Your task to perform on an android device: open app "LiveIn - Share Your Moment" (install if not already installed), go to login, and select forgot password Image 0: 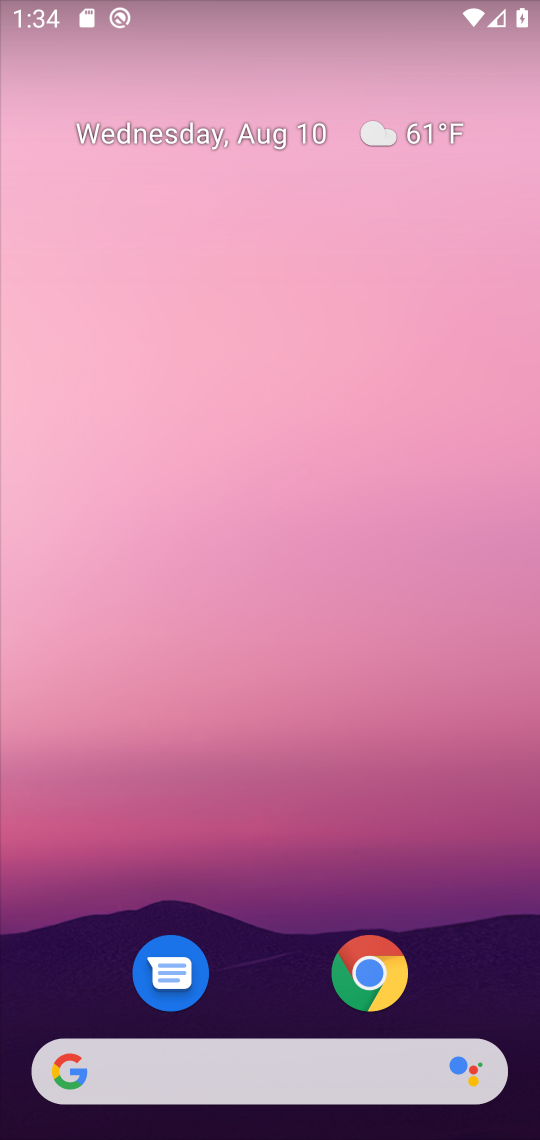
Step 0: drag from (295, 1006) to (308, 245)
Your task to perform on an android device: open app "LiveIn - Share Your Moment" (install if not already installed), go to login, and select forgot password Image 1: 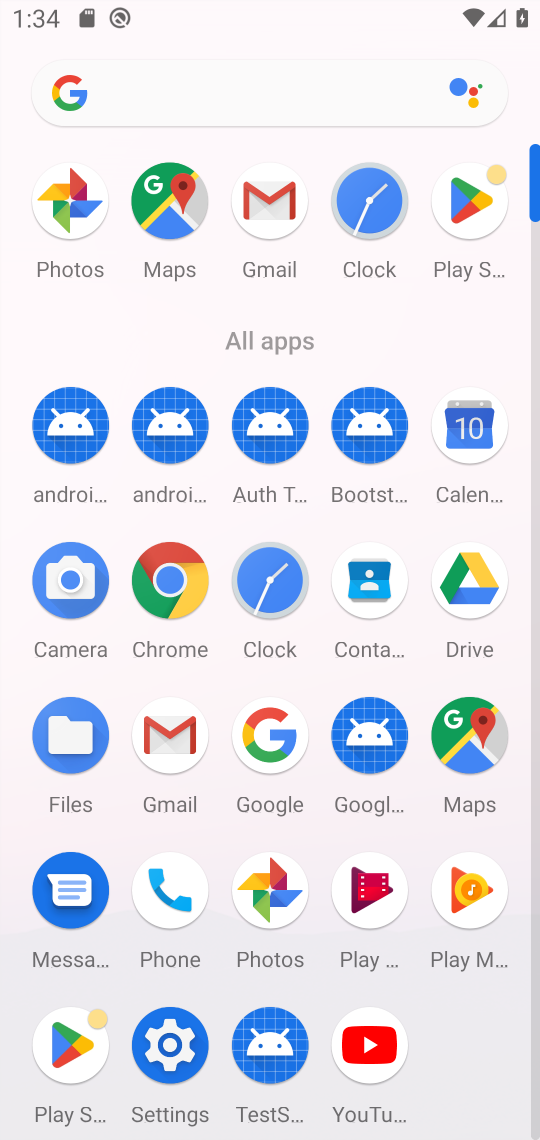
Step 1: click (488, 190)
Your task to perform on an android device: open app "LiveIn - Share Your Moment" (install if not already installed), go to login, and select forgot password Image 2: 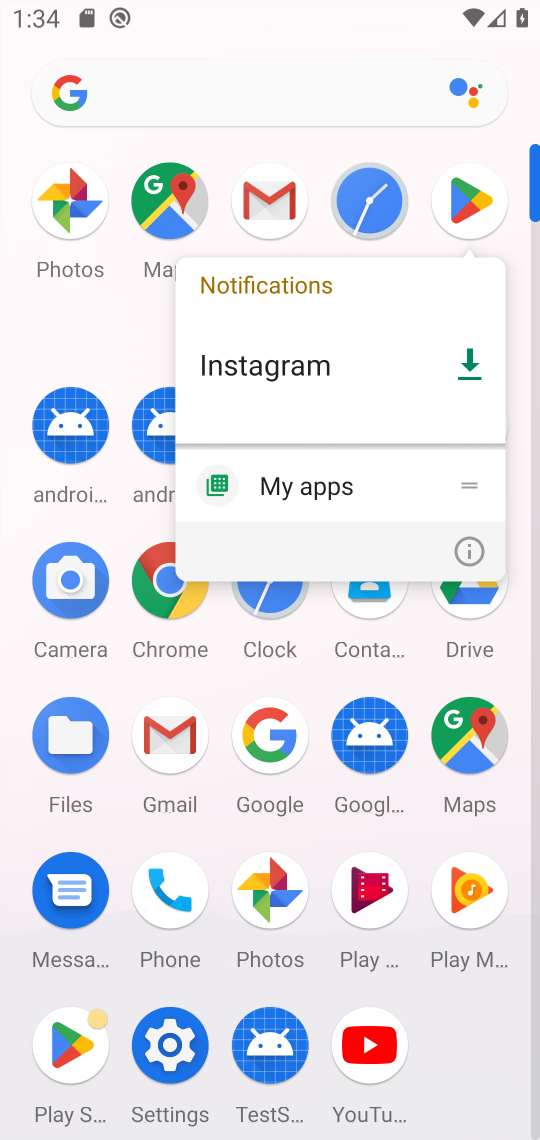
Step 2: click (437, 193)
Your task to perform on an android device: open app "LiveIn - Share Your Moment" (install if not already installed), go to login, and select forgot password Image 3: 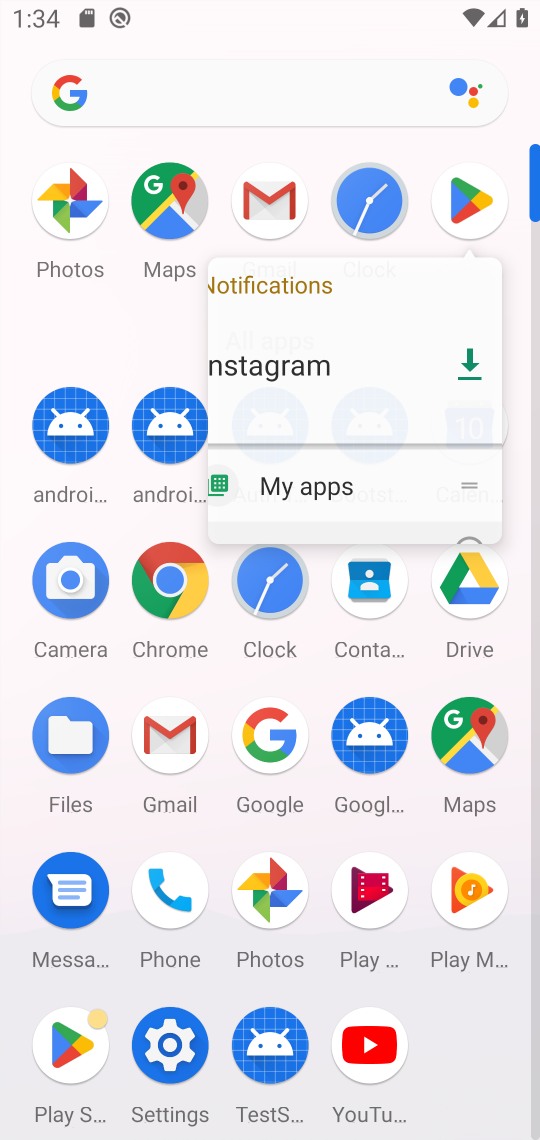
Step 3: click (452, 193)
Your task to perform on an android device: open app "LiveIn - Share Your Moment" (install if not already installed), go to login, and select forgot password Image 4: 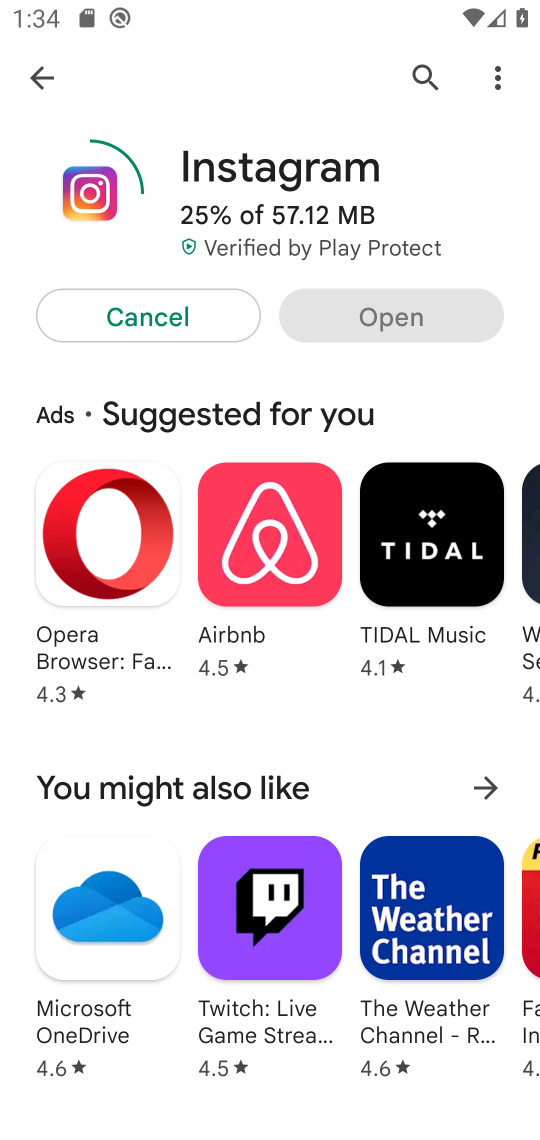
Step 4: click (47, 67)
Your task to perform on an android device: open app "LiveIn - Share Your Moment" (install if not already installed), go to login, and select forgot password Image 5: 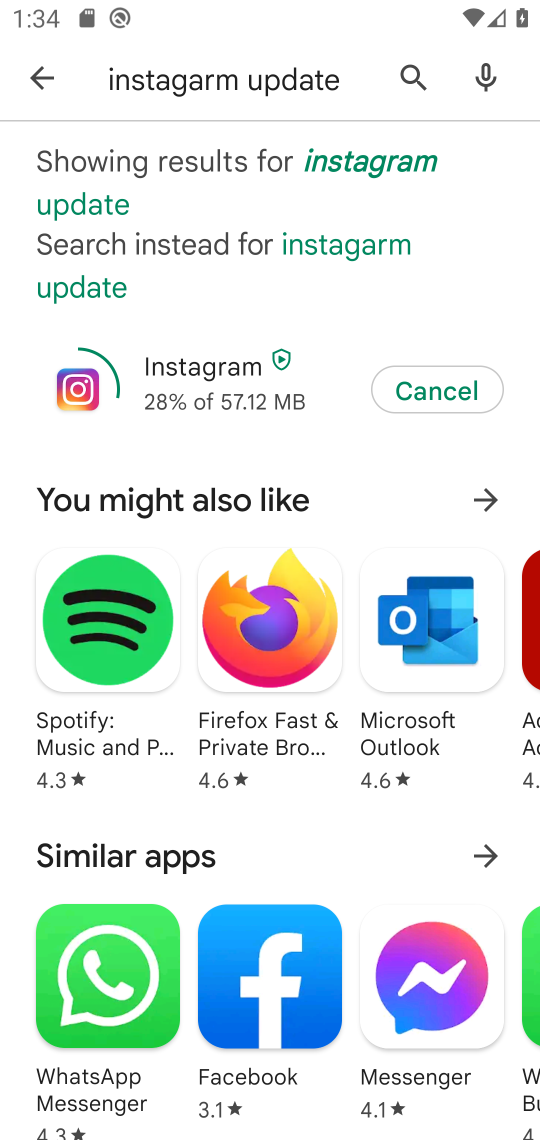
Step 5: click (47, 67)
Your task to perform on an android device: open app "LiveIn - Share Your Moment" (install if not already installed), go to login, and select forgot password Image 6: 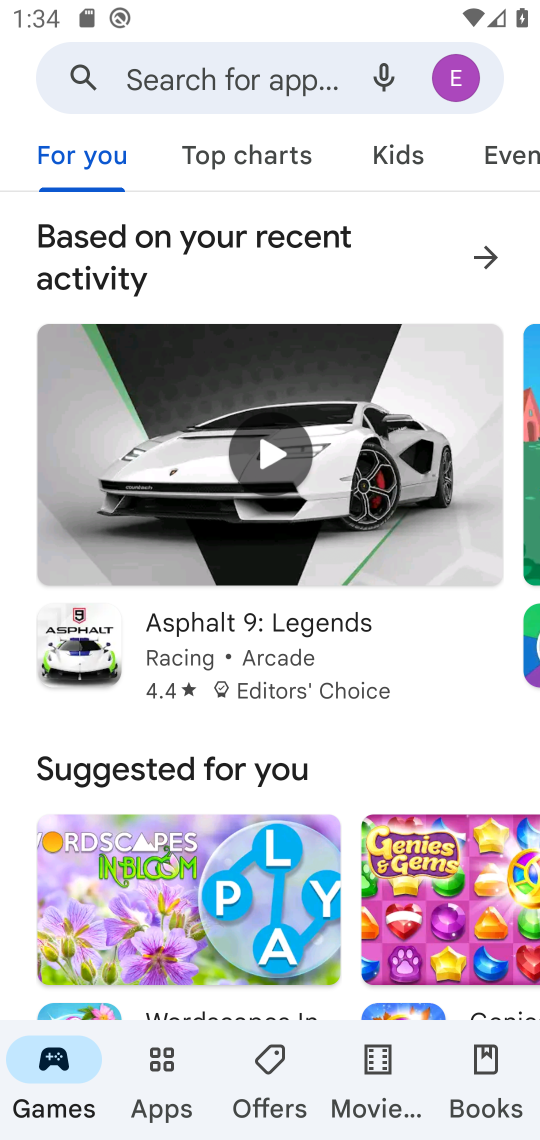
Step 6: click (320, 67)
Your task to perform on an android device: open app "LiveIn - Share Your Moment" (install if not already installed), go to login, and select forgot password Image 7: 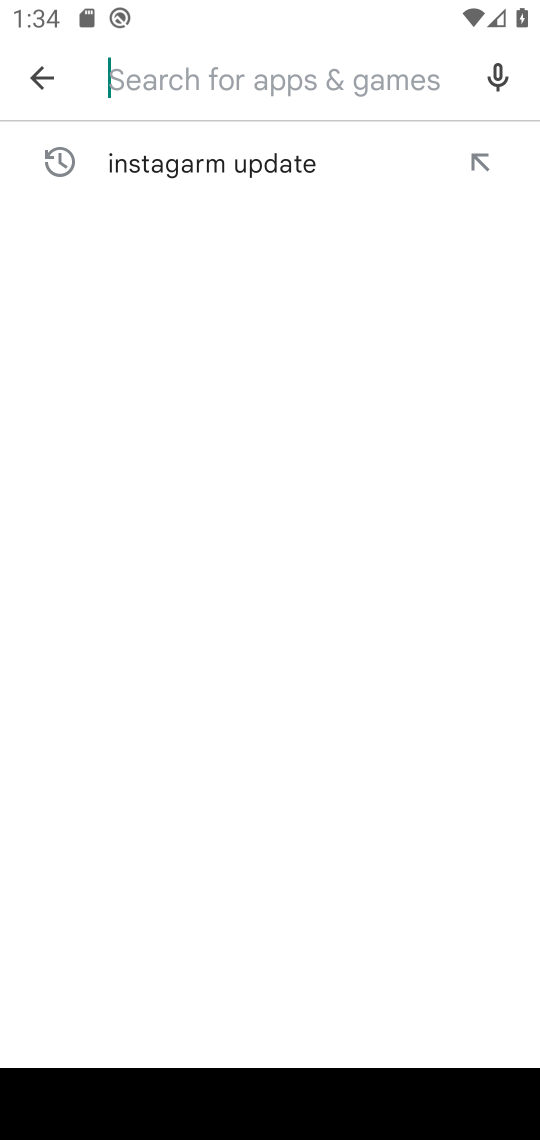
Step 7: type "LiveIn - Share Your Moment "
Your task to perform on an android device: open app "LiveIn - Share Your Moment" (install if not already installed), go to login, and select forgot password Image 8: 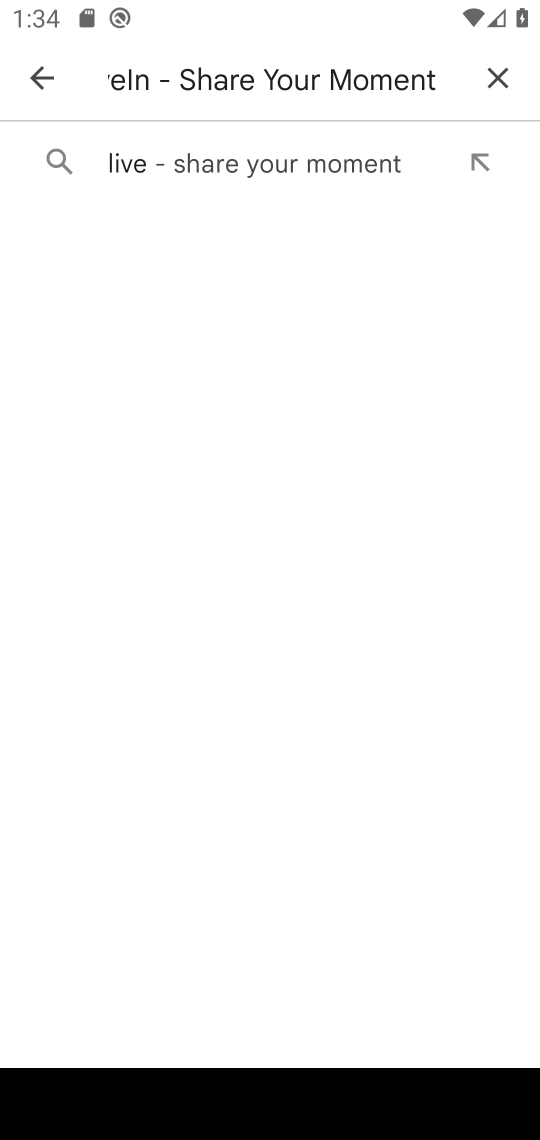
Step 8: click (288, 156)
Your task to perform on an android device: open app "LiveIn - Share Your Moment" (install if not already installed), go to login, and select forgot password Image 9: 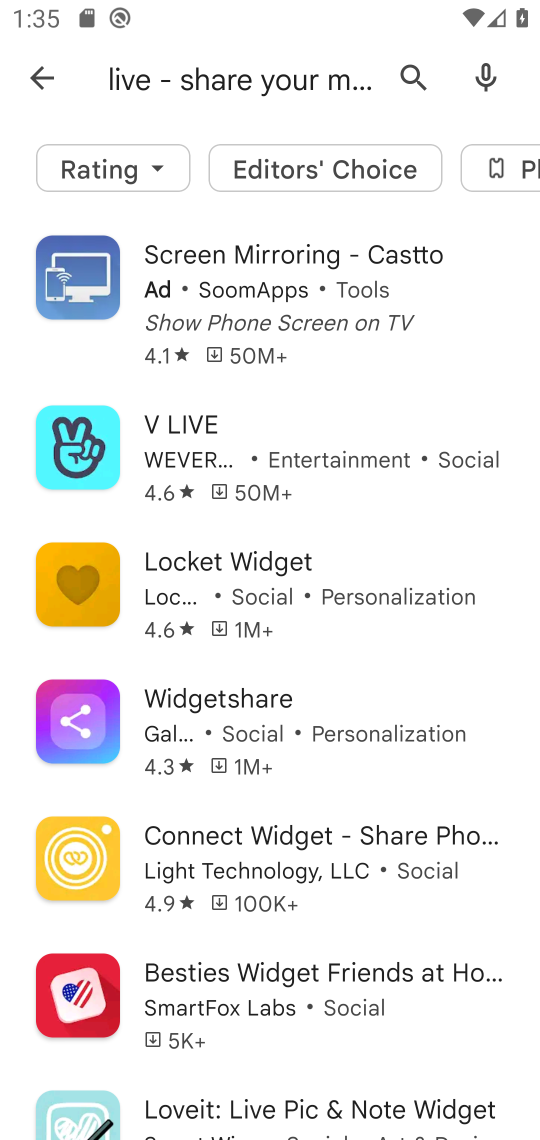
Step 9: drag from (273, 892) to (273, 827)
Your task to perform on an android device: open app "LiveIn - Share Your Moment" (install if not already installed), go to login, and select forgot password Image 10: 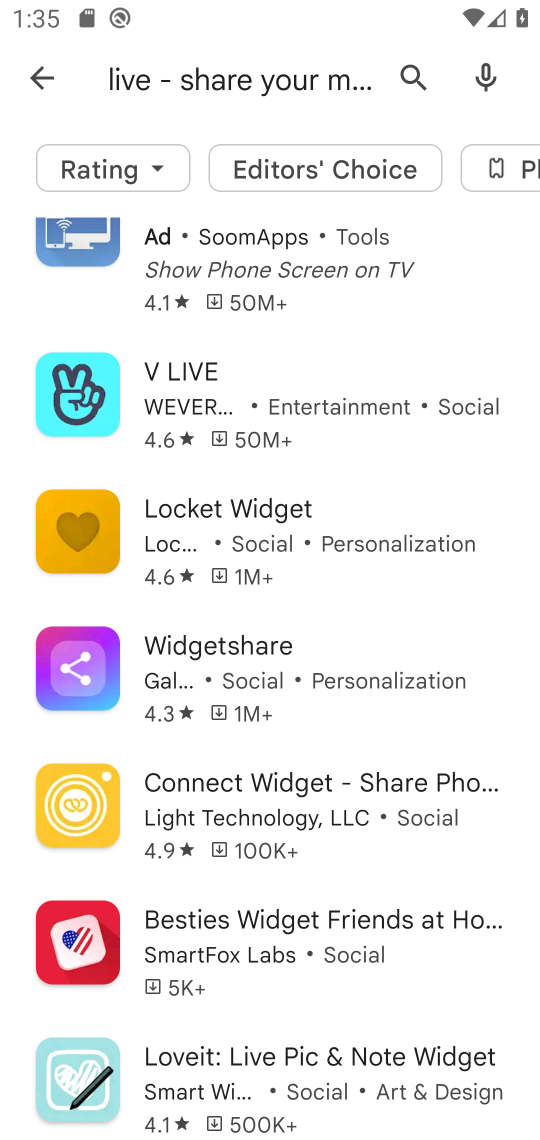
Step 10: click (219, 402)
Your task to perform on an android device: open app "LiveIn - Share Your Moment" (install if not already installed), go to login, and select forgot password Image 11: 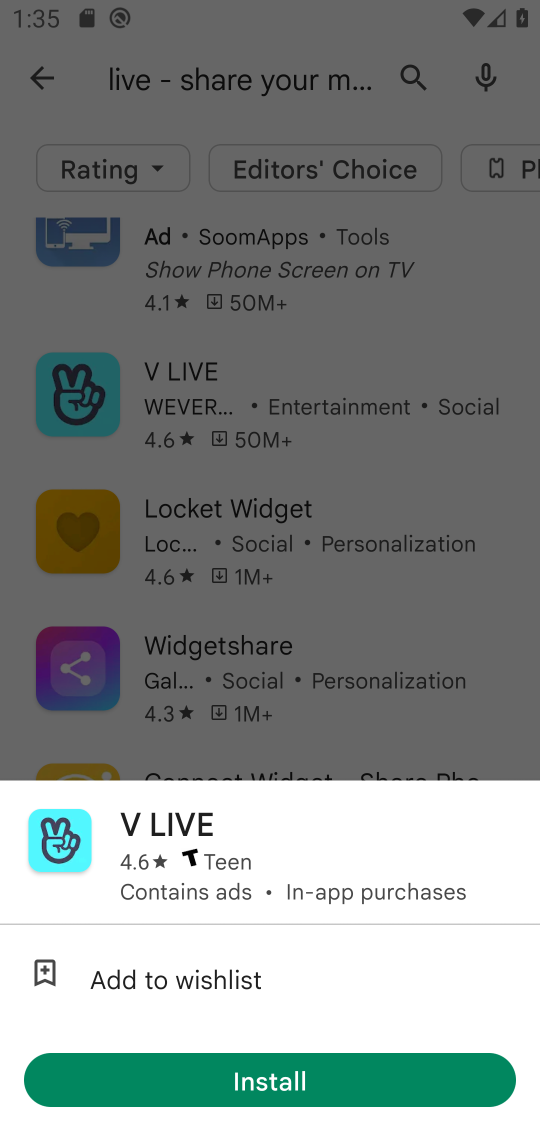
Step 11: click (219, 402)
Your task to perform on an android device: open app "LiveIn - Share Your Moment" (install if not already installed), go to login, and select forgot password Image 12: 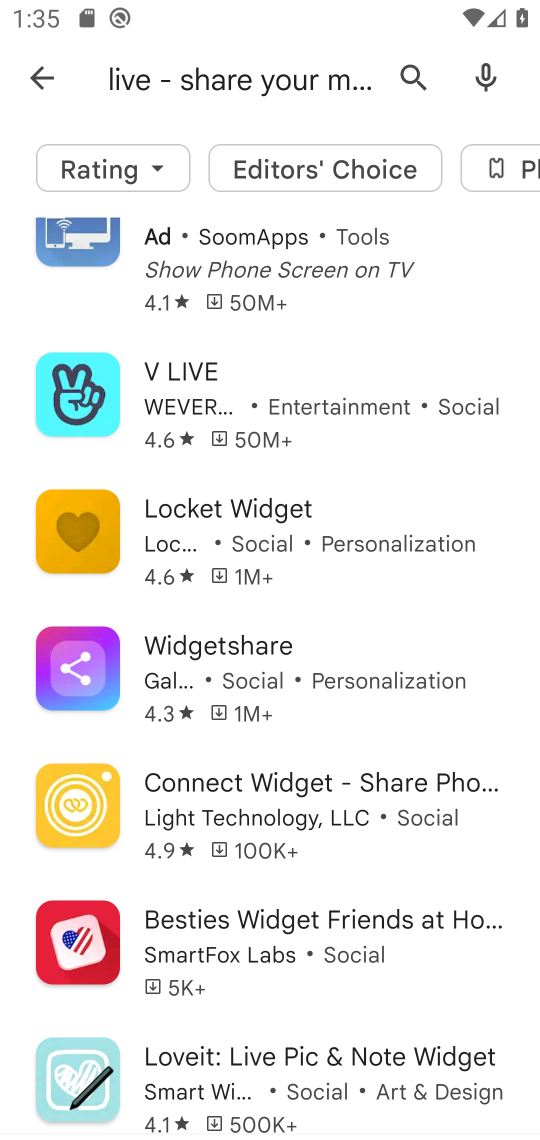
Step 12: task complete